Your task to perform on an android device: add a label to a message in the gmail app Image 0: 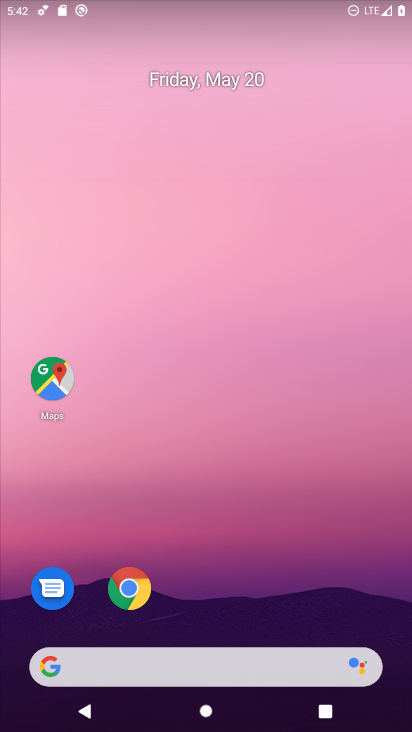
Step 0: click (229, 192)
Your task to perform on an android device: add a label to a message in the gmail app Image 1: 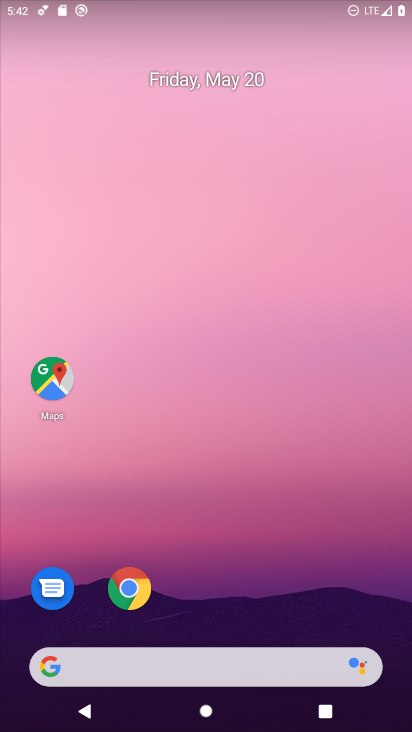
Step 1: drag from (226, 596) to (217, 198)
Your task to perform on an android device: add a label to a message in the gmail app Image 2: 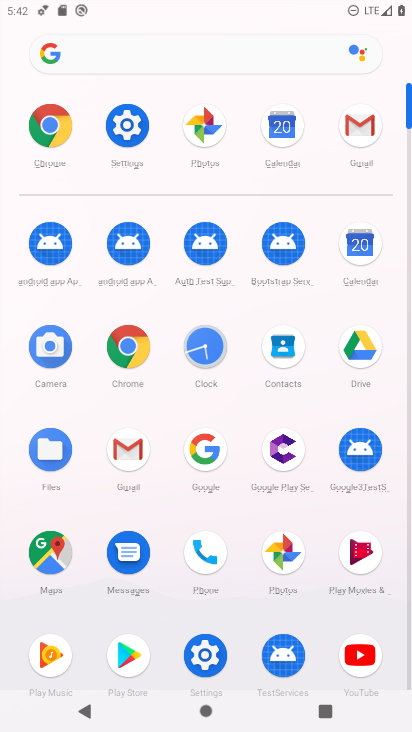
Step 2: click (133, 458)
Your task to perform on an android device: add a label to a message in the gmail app Image 3: 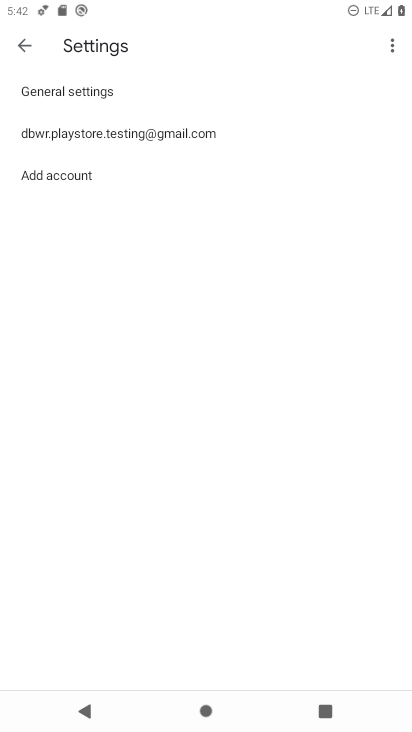
Step 3: click (152, 132)
Your task to perform on an android device: add a label to a message in the gmail app Image 4: 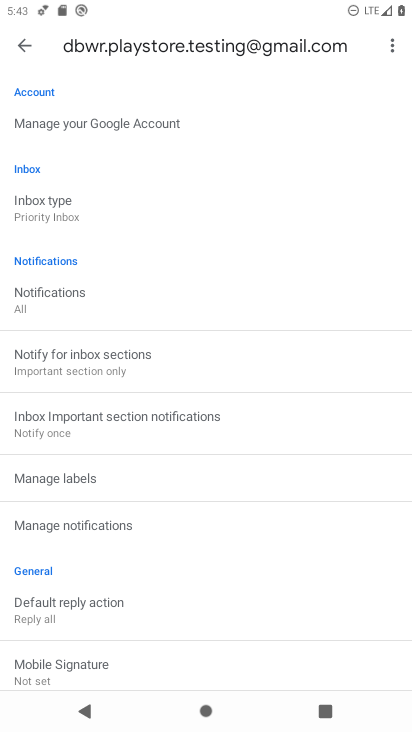
Step 4: click (29, 50)
Your task to perform on an android device: add a label to a message in the gmail app Image 5: 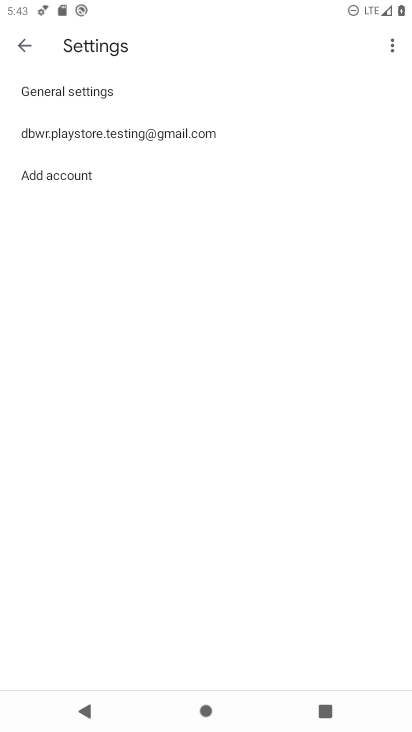
Step 5: click (27, 47)
Your task to perform on an android device: add a label to a message in the gmail app Image 6: 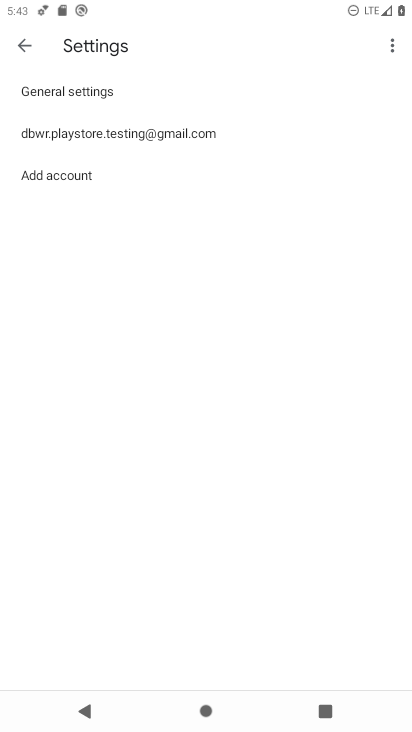
Step 6: click (27, 47)
Your task to perform on an android device: add a label to a message in the gmail app Image 7: 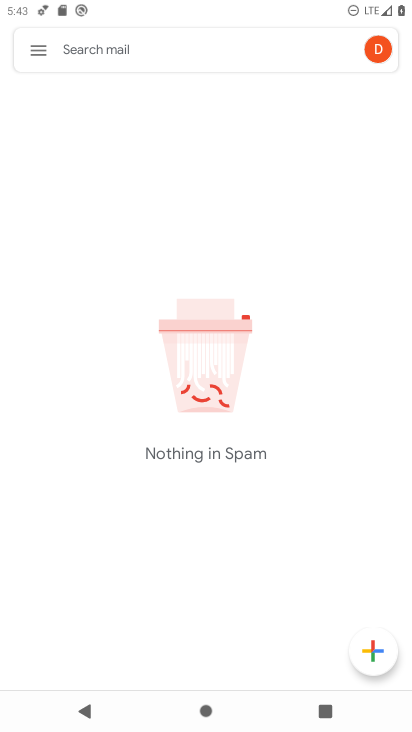
Step 7: click (43, 52)
Your task to perform on an android device: add a label to a message in the gmail app Image 8: 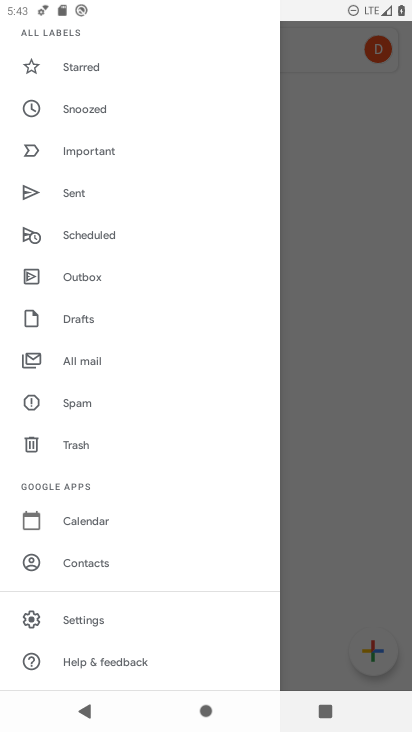
Step 8: click (84, 362)
Your task to perform on an android device: add a label to a message in the gmail app Image 9: 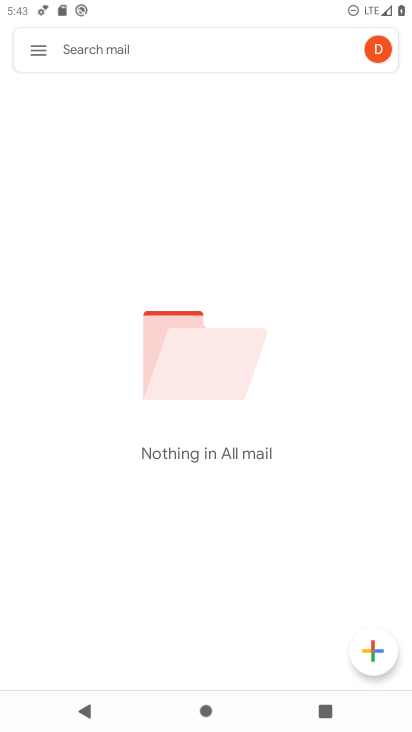
Step 9: task complete